Your task to perform on an android device: change the clock style Image 0: 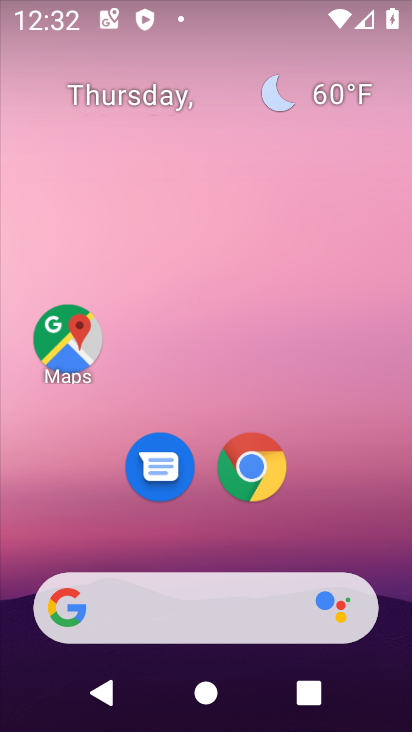
Step 0: drag from (206, 453) to (225, 284)
Your task to perform on an android device: change the clock style Image 1: 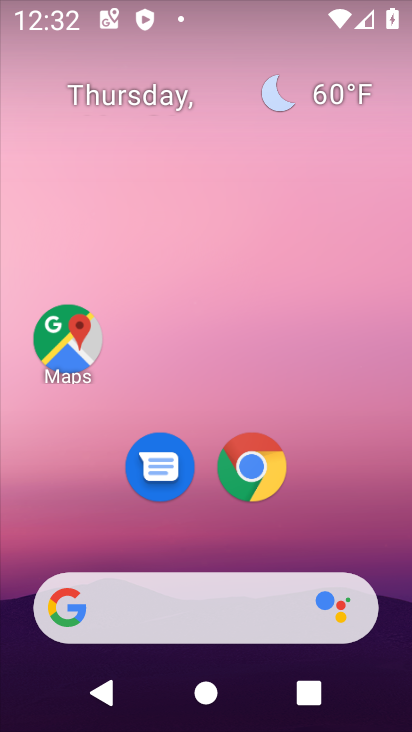
Step 1: drag from (220, 542) to (306, 1)
Your task to perform on an android device: change the clock style Image 2: 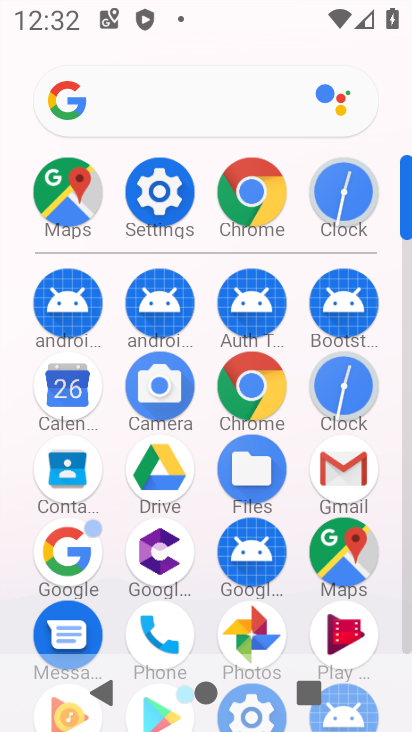
Step 2: drag from (152, 567) to (159, 400)
Your task to perform on an android device: change the clock style Image 3: 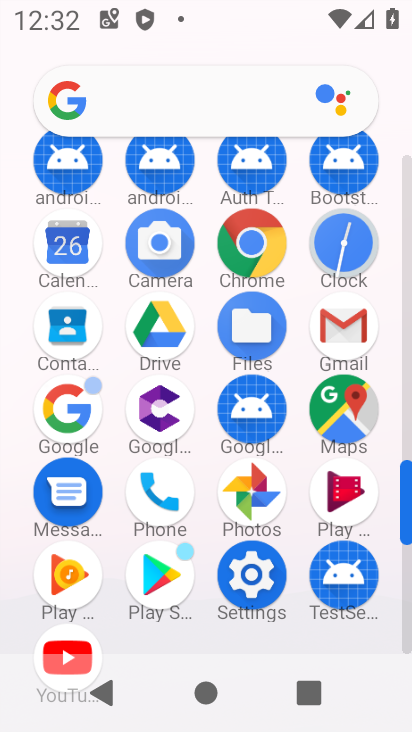
Step 3: click (350, 246)
Your task to perform on an android device: change the clock style Image 4: 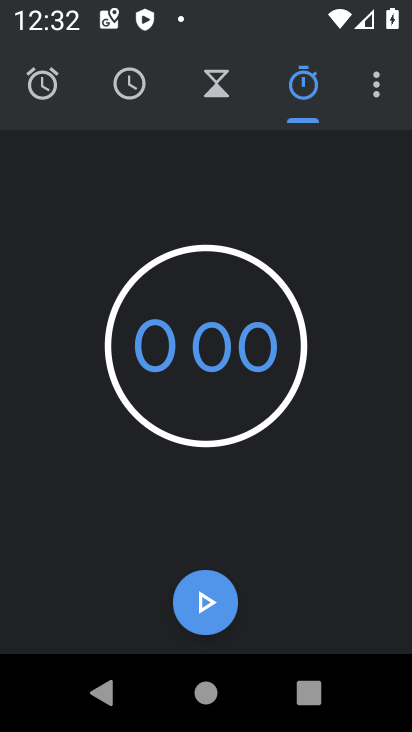
Step 4: click (367, 81)
Your task to perform on an android device: change the clock style Image 5: 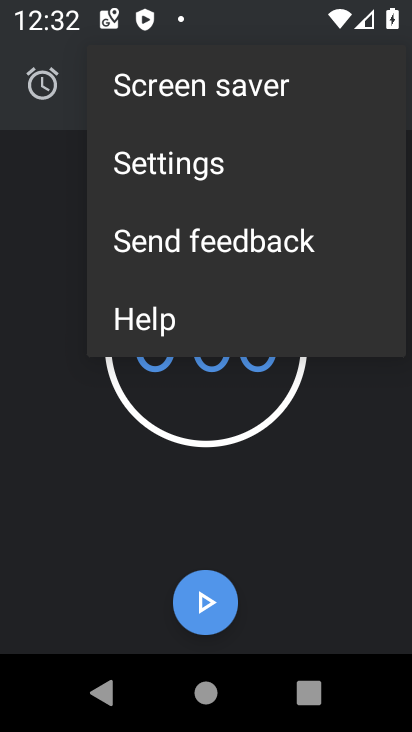
Step 5: click (167, 193)
Your task to perform on an android device: change the clock style Image 6: 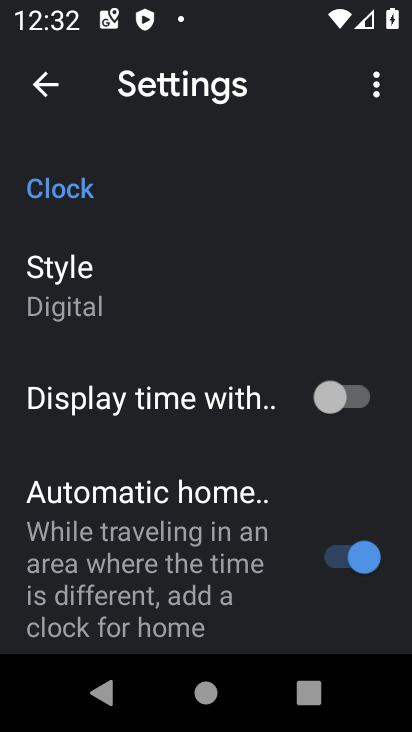
Step 6: click (78, 280)
Your task to perform on an android device: change the clock style Image 7: 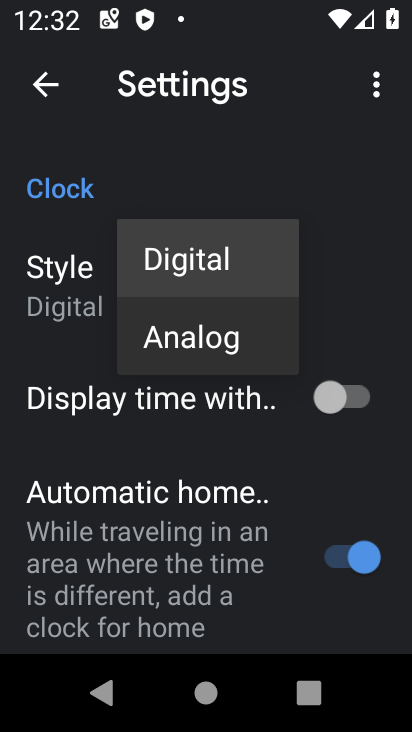
Step 7: click (179, 344)
Your task to perform on an android device: change the clock style Image 8: 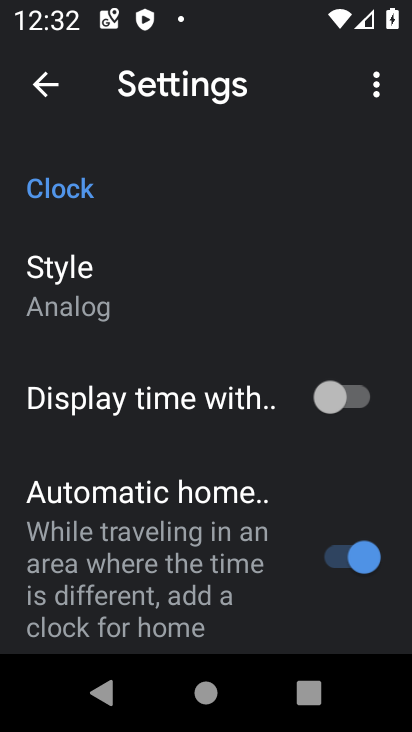
Step 8: task complete